Your task to perform on an android device: allow notifications from all sites in the chrome app Image 0: 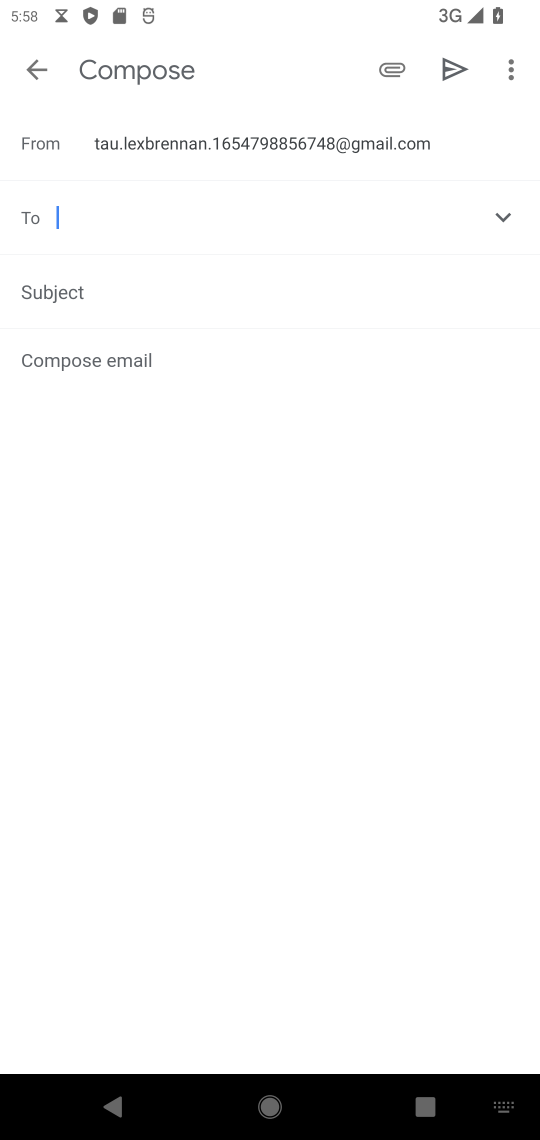
Step 0: press home button
Your task to perform on an android device: allow notifications from all sites in the chrome app Image 1: 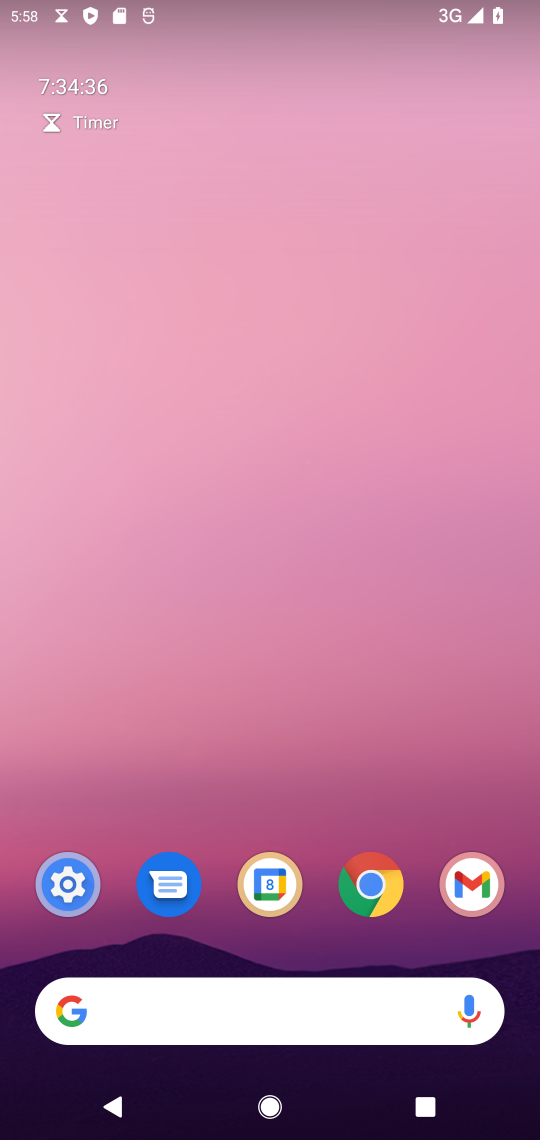
Step 1: click (382, 901)
Your task to perform on an android device: allow notifications from all sites in the chrome app Image 2: 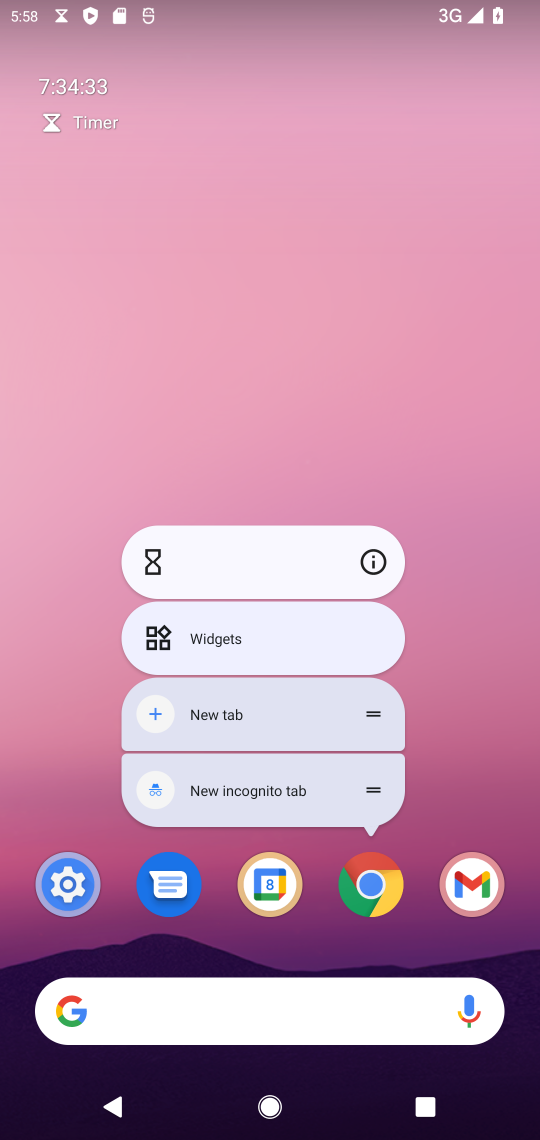
Step 2: click (382, 901)
Your task to perform on an android device: allow notifications from all sites in the chrome app Image 3: 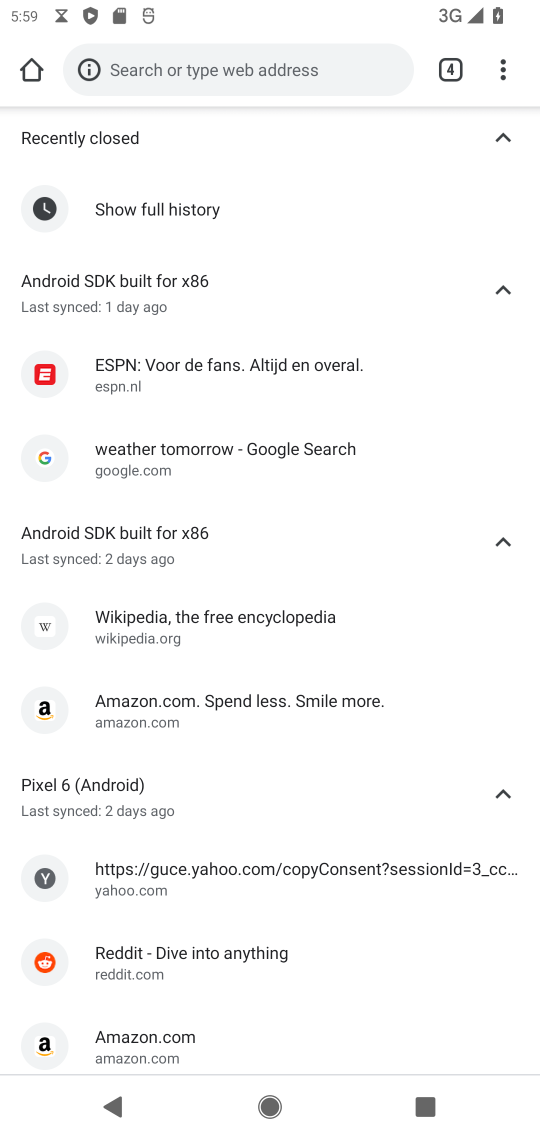
Step 3: click (512, 80)
Your task to perform on an android device: allow notifications from all sites in the chrome app Image 4: 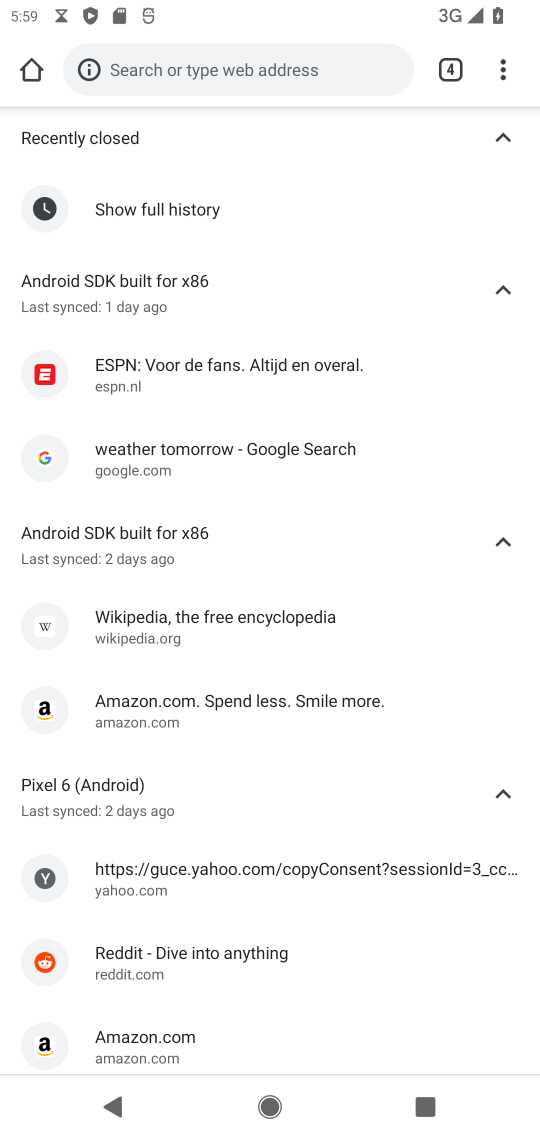
Step 4: click (512, 80)
Your task to perform on an android device: allow notifications from all sites in the chrome app Image 5: 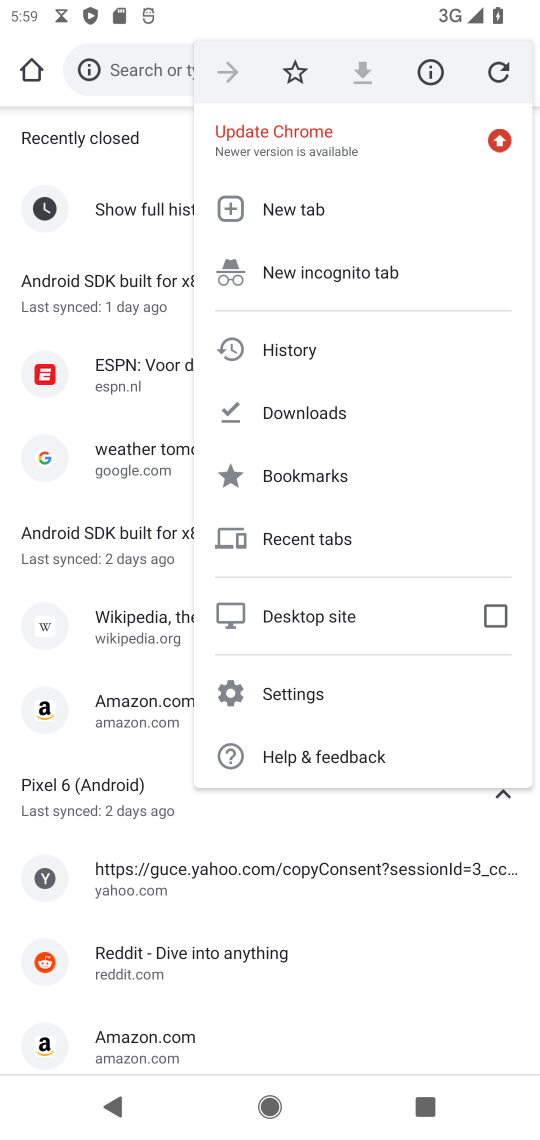
Step 5: click (298, 700)
Your task to perform on an android device: allow notifications from all sites in the chrome app Image 6: 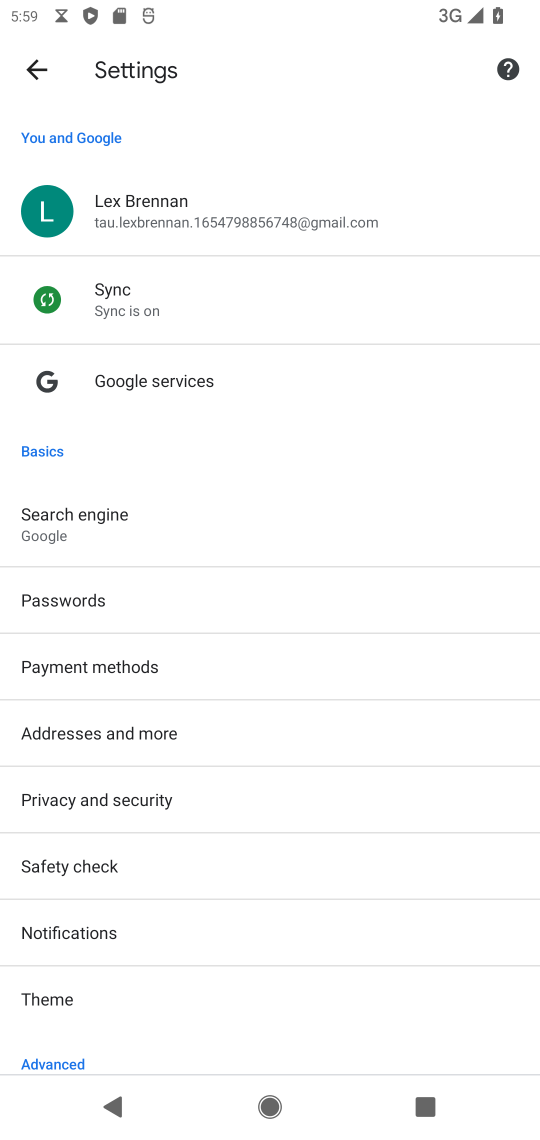
Step 6: drag from (186, 1019) to (139, 314)
Your task to perform on an android device: allow notifications from all sites in the chrome app Image 7: 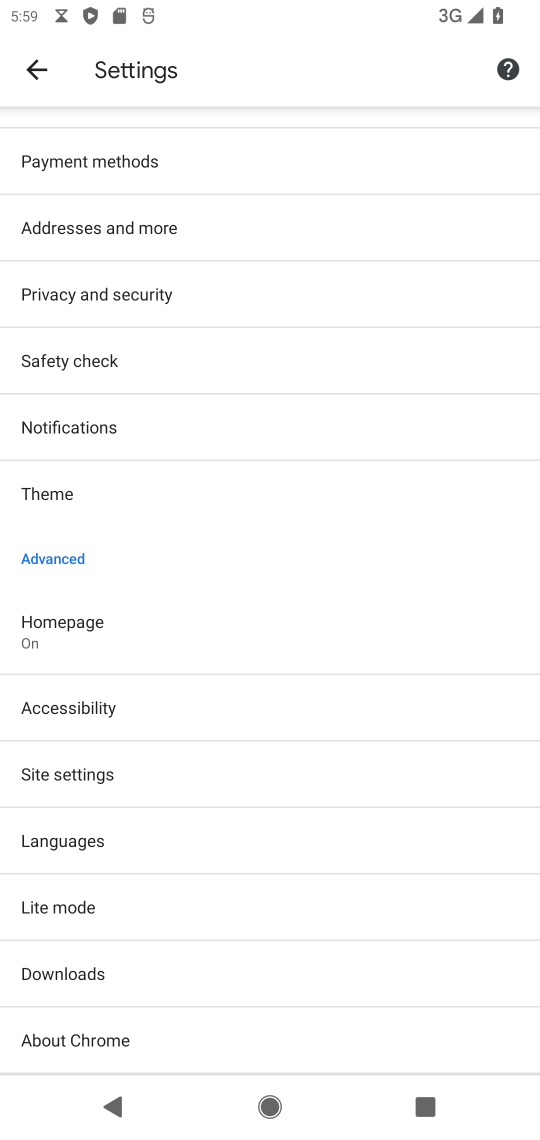
Step 7: click (194, 766)
Your task to perform on an android device: allow notifications from all sites in the chrome app Image 8: 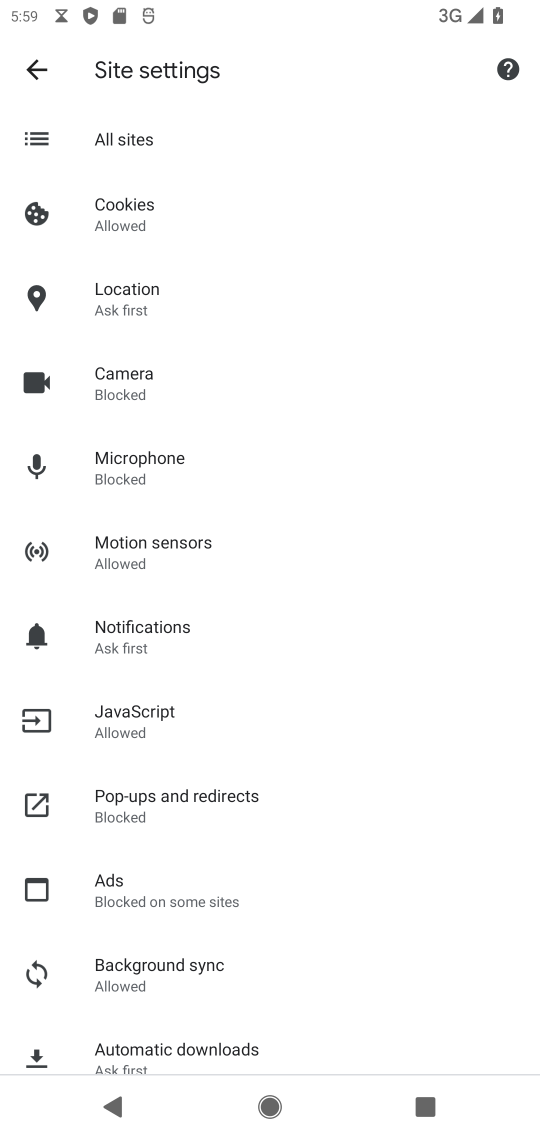
Step 8: click (190, 633)
Your task to perform on an android device: allow notifications from all sites in the chrome app Image 9: 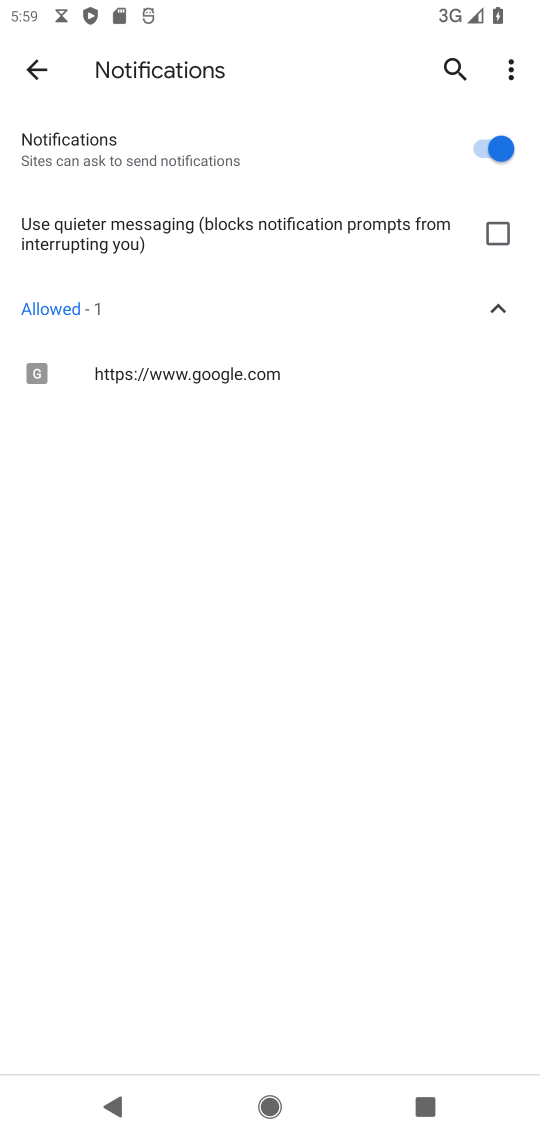
Step 9: task complete